Your task to perform on an android device: add a contact Image 0: 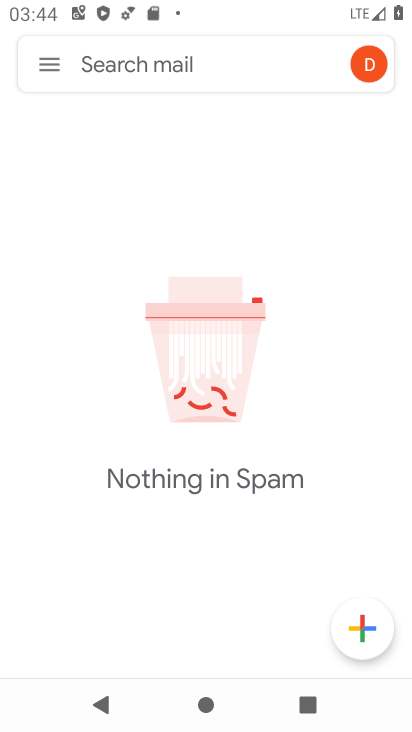
Step 0: press home button
Your task to perform on an android device: add a contact Image 1: 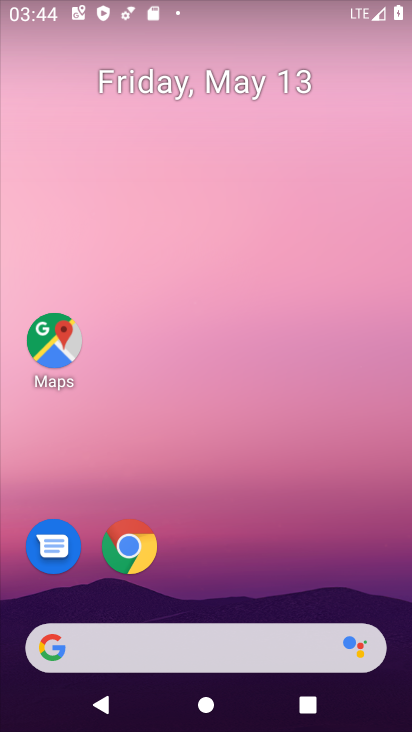
Step 1: drag from (246, 604) to (303, 49)
Your task to perform on an android device: add a contact Image 2: 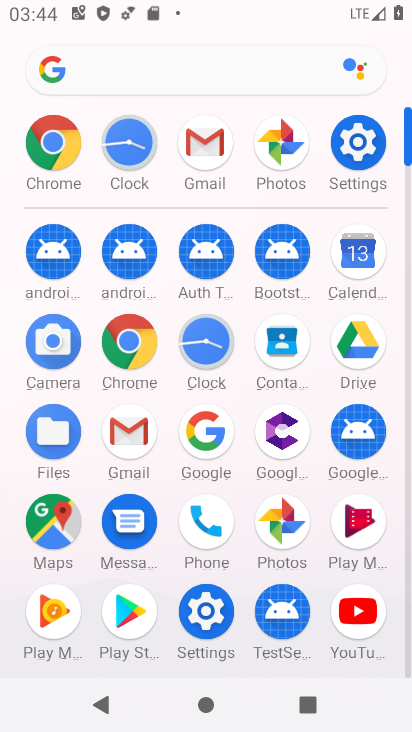
Step 2: click (298, 350)
Your task to perform on an android device: add a contact Image 3: 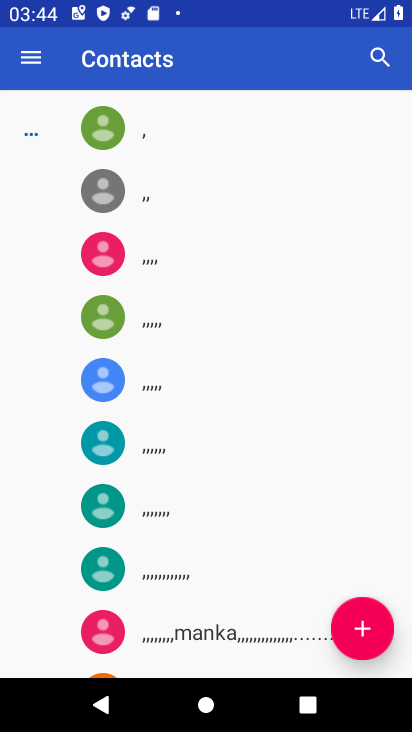
Step 3: click (373, 640)
Your task to perform on an android device: add a contact Image 4: 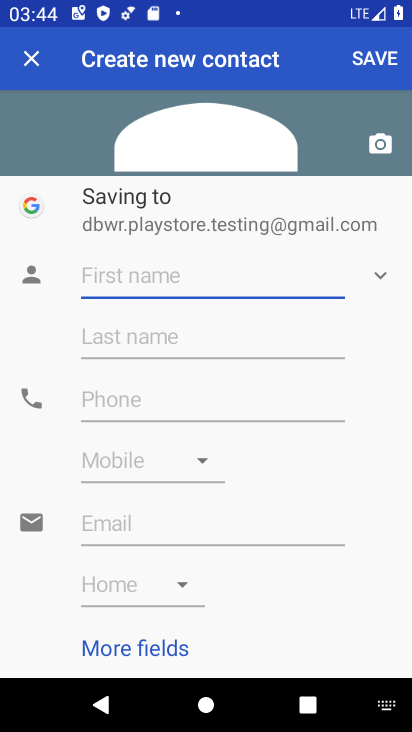
Step 4: type ""
Your task to perform on an android device: add a contact Image 5: 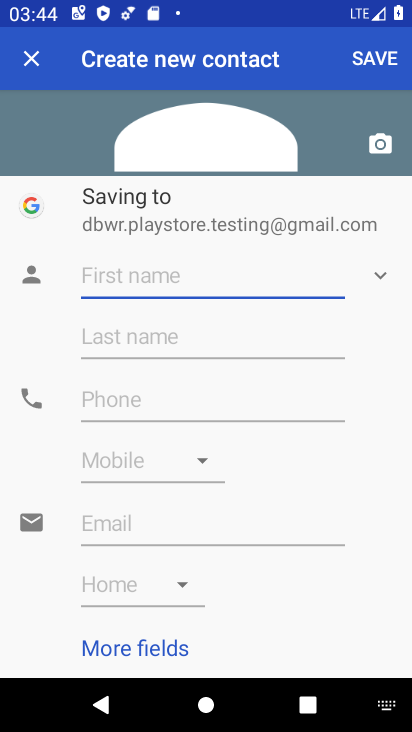
Step 5: type "bhat"
Your task to perform on an android device: add a contact Image 6: 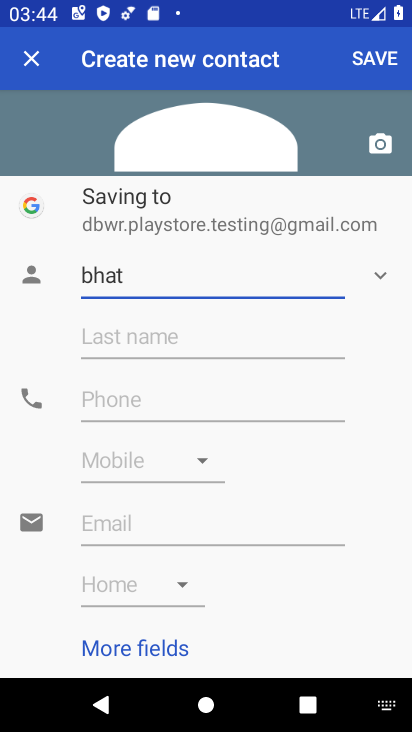
Step 6: click (199, 399)
Your task to perform on an android device: add a contact Image 7: 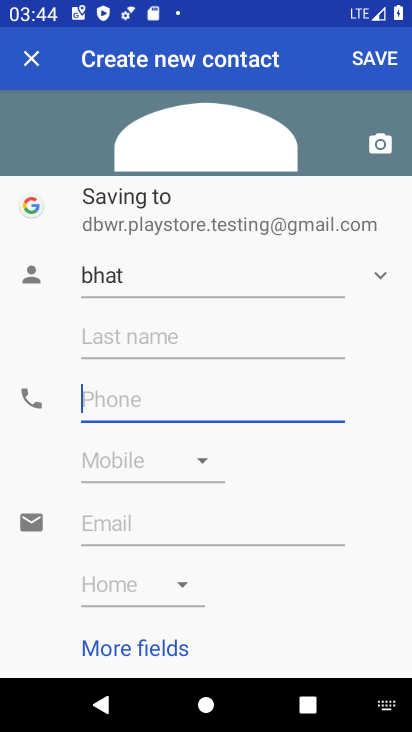
Step 7: type "987654345"
Your task to perform on an android device: add a contact Image 8: 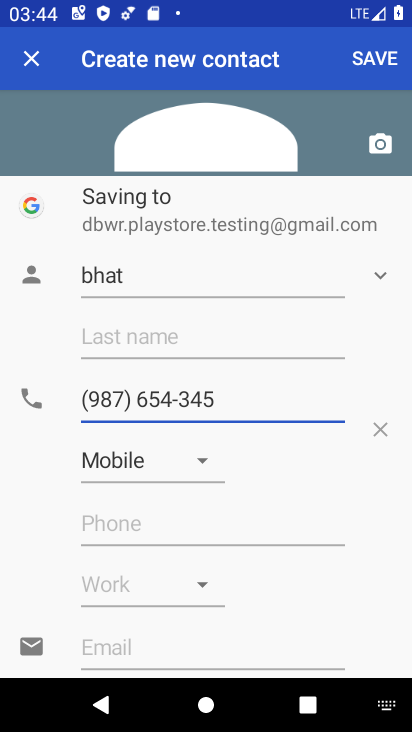
Step 8: click (390, 53)
Your task to perform on an android device: add a contact Image 9: 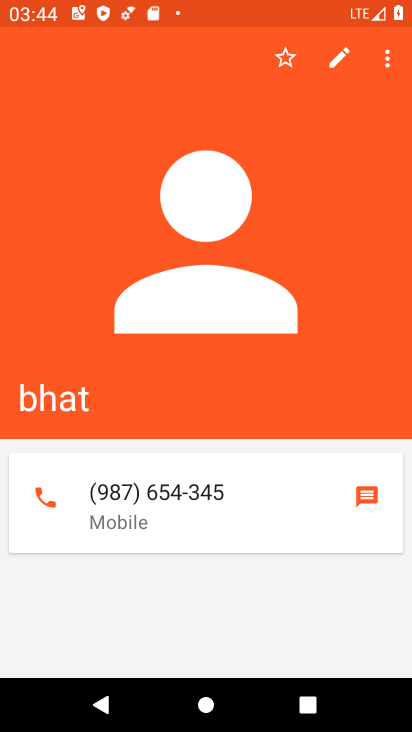
Step 9: task complete